Your task to perform on an android device: open sync settings in chrome Image 0: 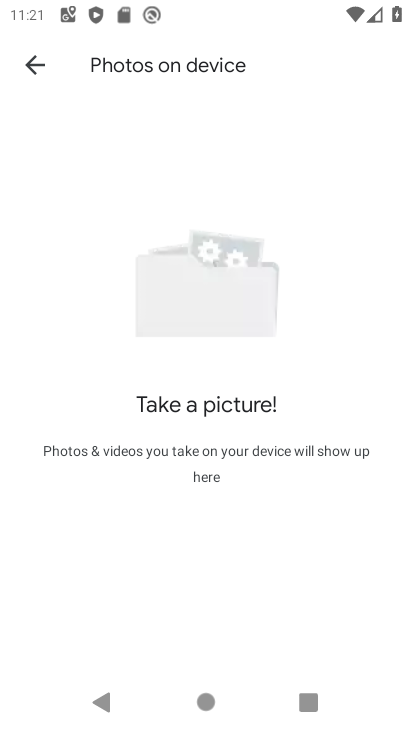
Step 0: press home button
Your task to perform on an android device: open sync settings in chrome Image 1: 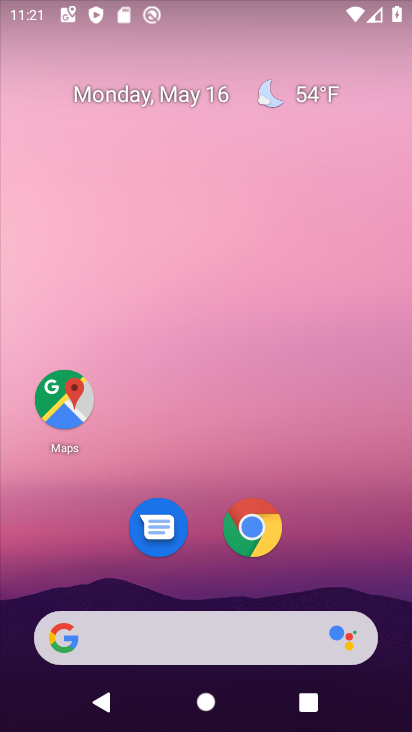
Step 1: drag from (244, 691) to (262, 222)
Your task to perform on an android device: open sync settings in chrome Image 2: 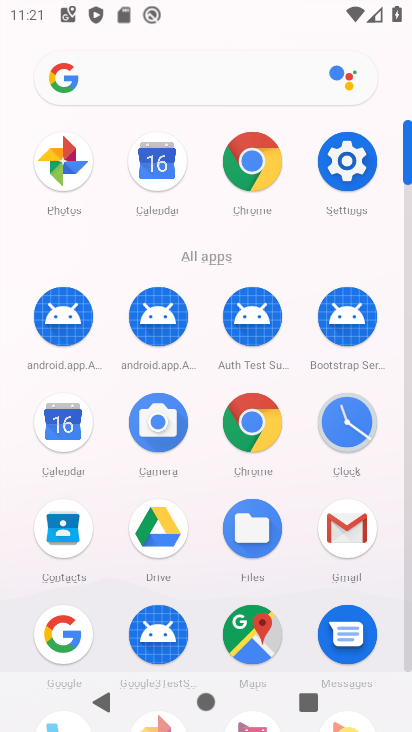
Step 2: click (273, 157)
Your task to perform on an android device: open sync settings in chrome Image 3: 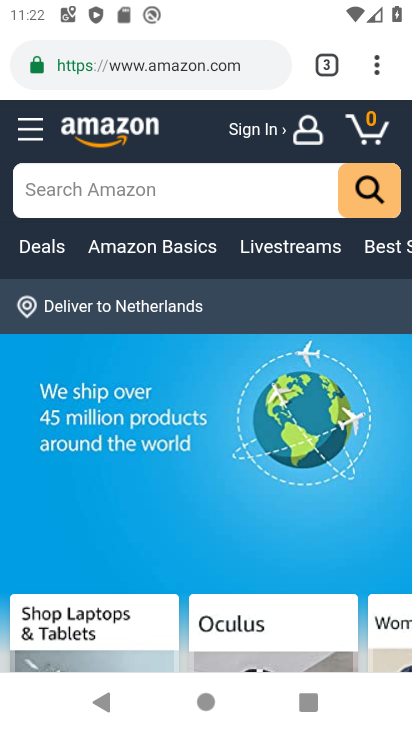
Step 3: click (375, 68)
Your task to perform on an android device: open sync settings in chrome Image 4: 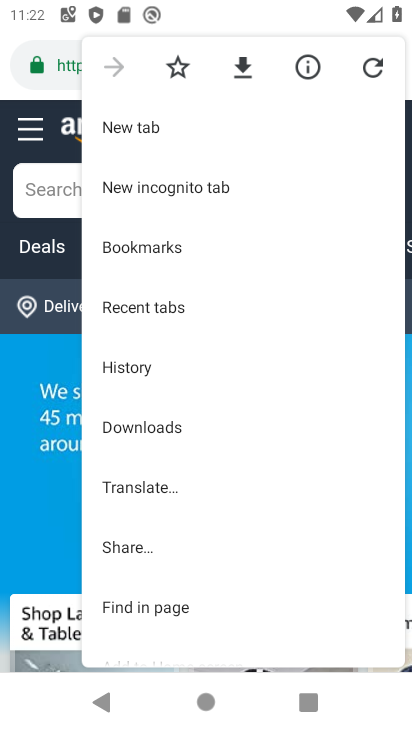
Step 4: drag from (185, 585) to (239, 215)
Your task to perform on an android device: open sync settings in chrome Image 5: 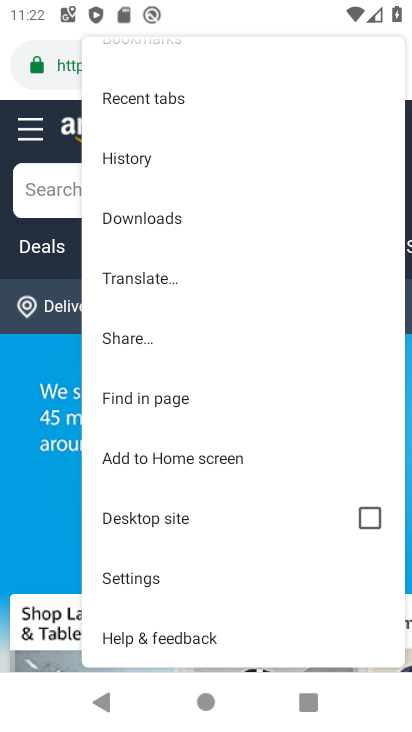
Step 5: click (170, 578)
Your task to perform on an android device: open sync settings in chrome Image 6: 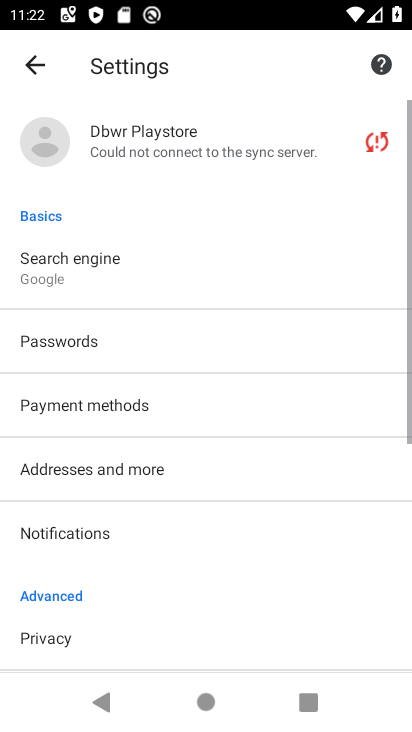
Step 6: task complete